Your task to perform on an android device: change the clock display to analog Image 0: 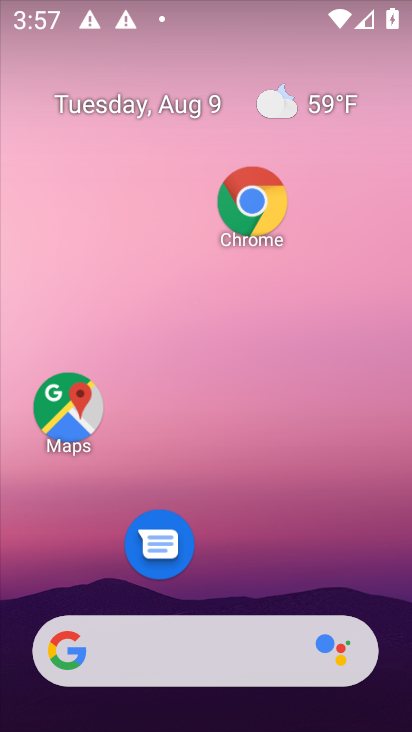
Step 0: drag from (202, 566) to (203, 37)
Your task to perform on an android device: change the clock display to analog Image 1: 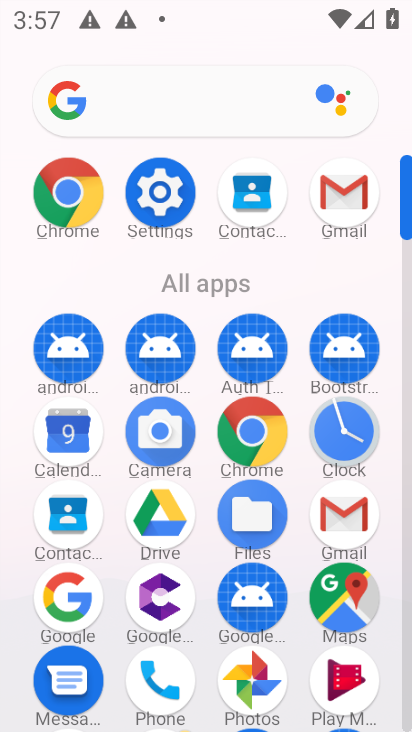
Step 1: click (359, 436)
Your task to perform on an android device: change the clock display to analog Image 2: 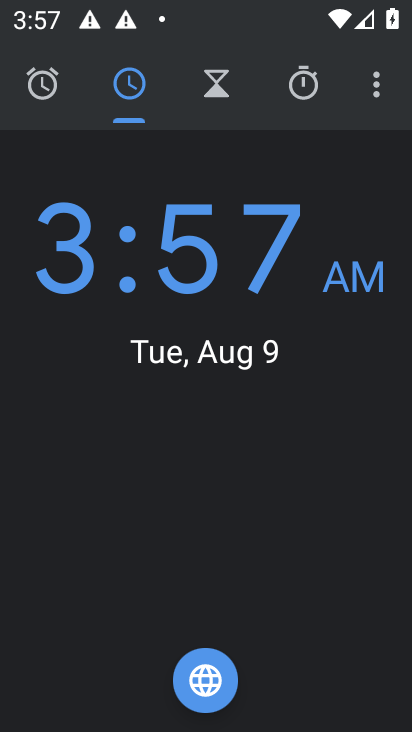
Step 2: click (374, 84)
Your task to perform on an android device: change the clock display to analog Image 3: 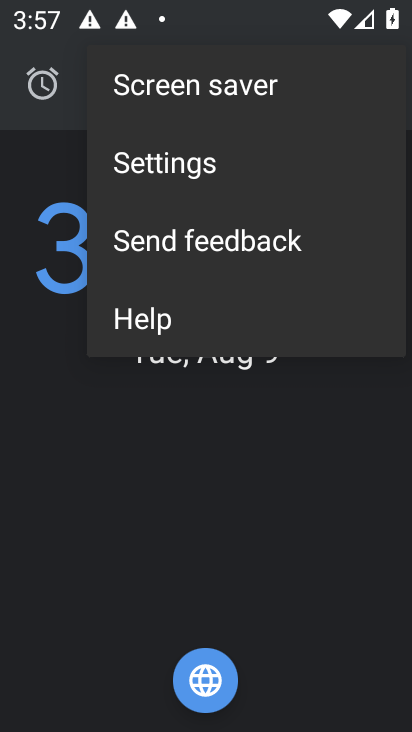
Step 3: click (167, 170)
Your task to perform on an android device: change the clock display to analog Image 4: 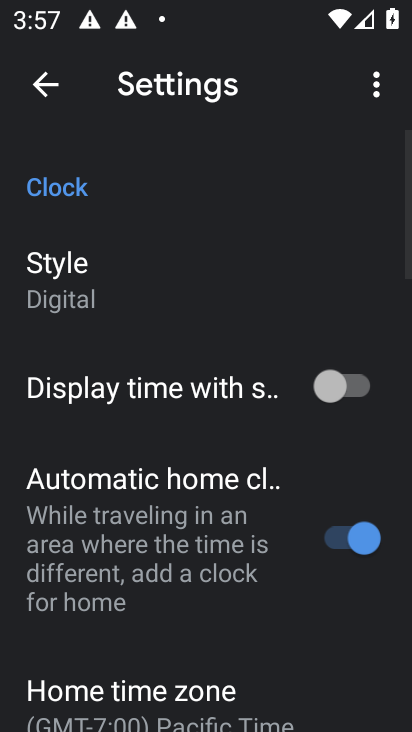
Step 4: drag from (93, 623) to (107, 344)
Your task to perform on an android device: change the clock display to analog Image 5: 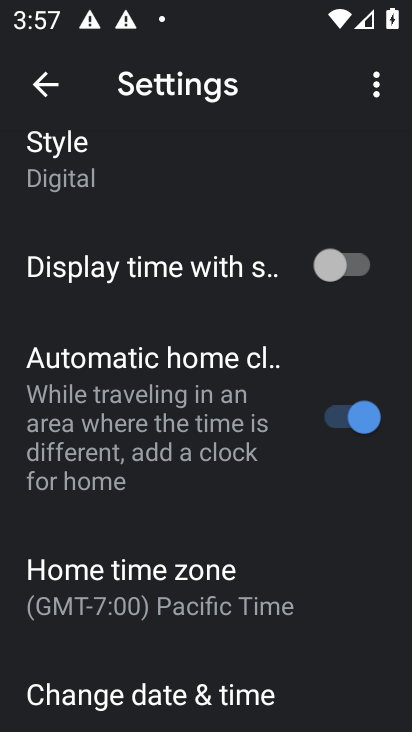
Step 5: click (84, 177)
Your task to perform on an android device: change the clock display to analog Image 6: 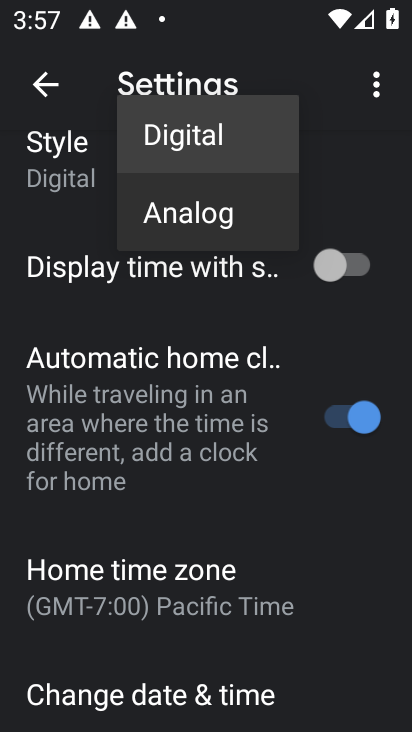
Step 6: click (161, 215)
Your task to perform on an android device: change the clock display to analog Image 7: 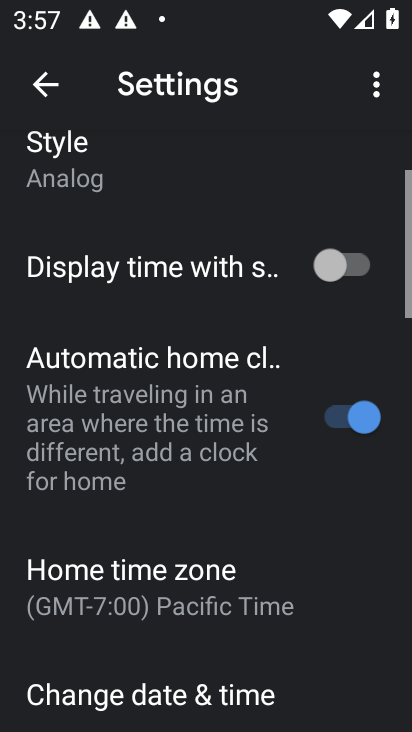
Step 7: task complete